Your task to perform on an android device: Open wifi settings Image 0: 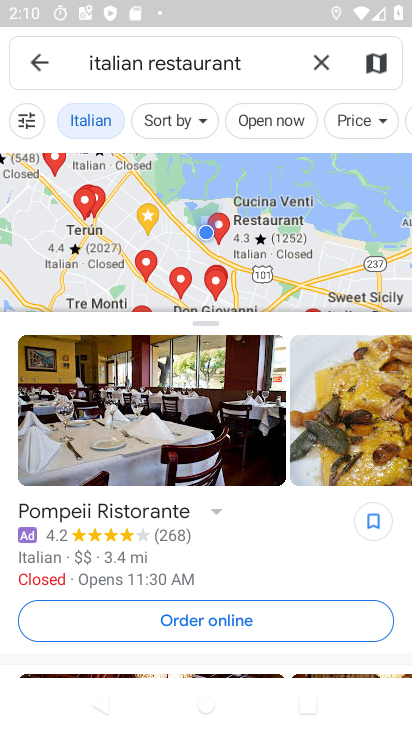
Step 0: press home button
Your task to perform on an android device: Open wifi settings Image 1: 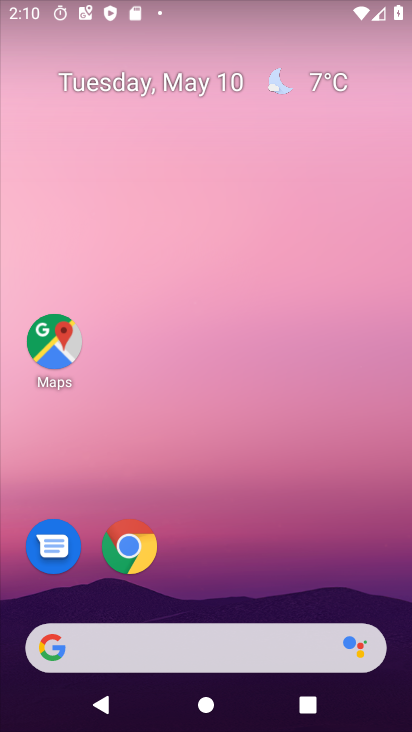
Step 1: drag from (300, 499) to (242, 64)
Your task to perform on an android device: Open wifi settings Image 2: 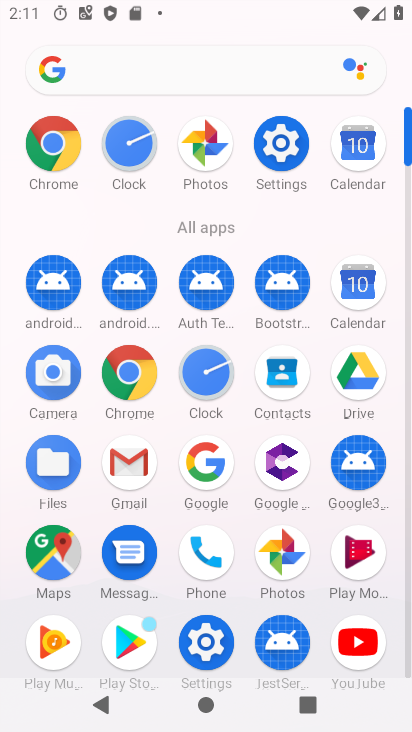
Step 2: click (271, 151)
Your task to perform on an android device: Open wifi settings Image 3: 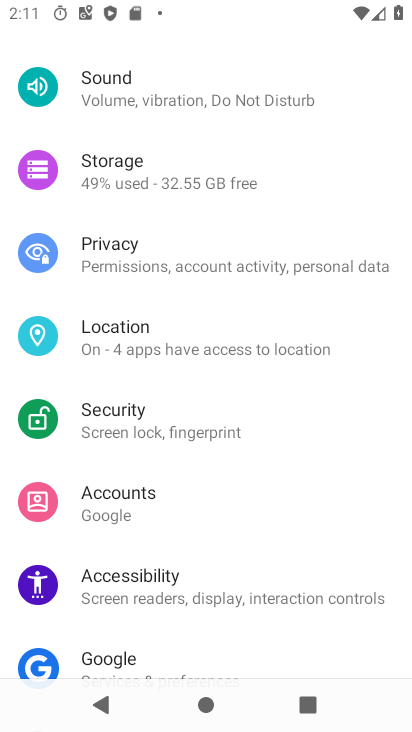
Step 3: drag from (198, 260) to (247, 543)
Your task to perform on an android device: Open wifi settings Image 4: 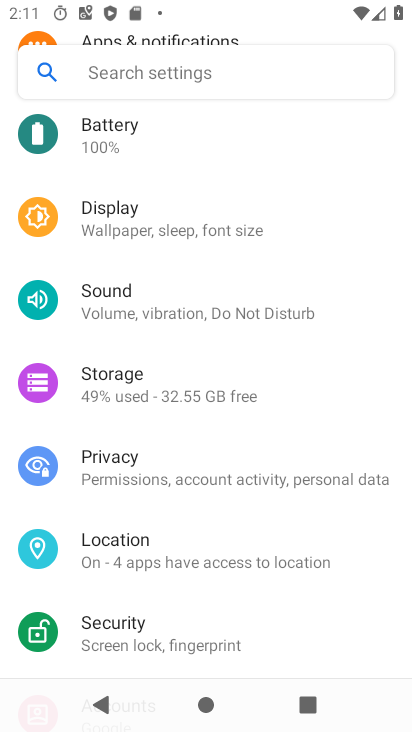
Step 4: drag from (234, 292) to (327, 575)
Your task to perform on an android device: Open wifi settings Image 5: 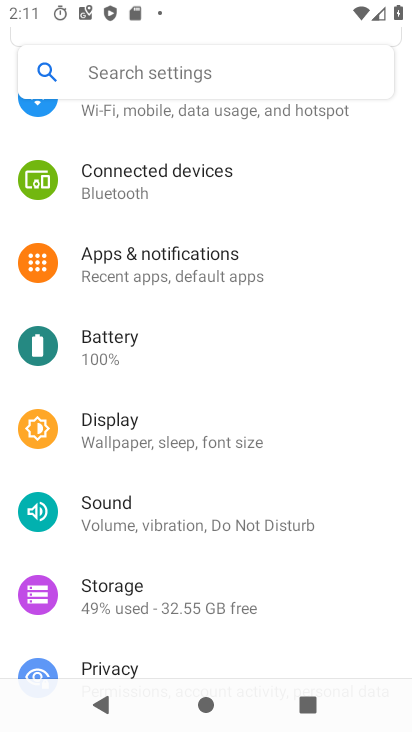
Step 5: drag from (200, 202) to (264, 555)
Your task to perform on an android device: Open wifi settings Image 6: 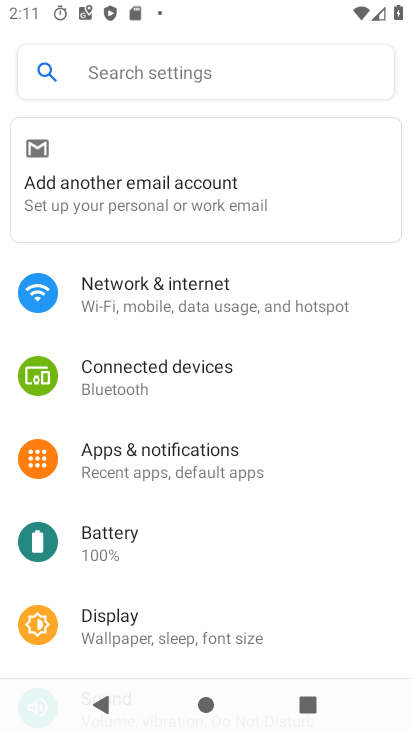
Step 6: click (175, 288)
Your task to perform on an android device: Open wifi settings Image 7: 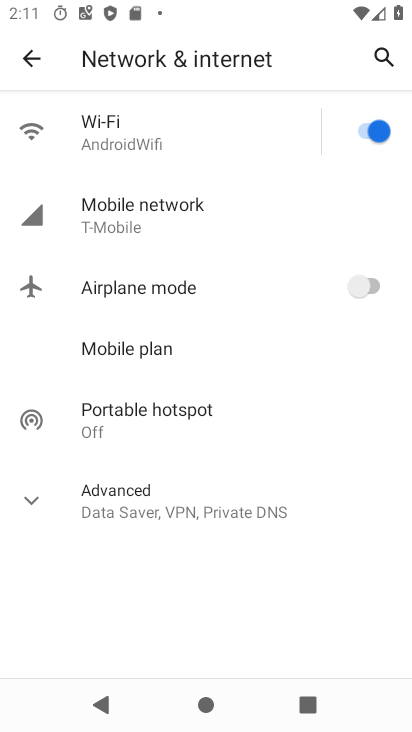
Step 7: click (140, 147)
Your task to perform on an android device: Open wifi settings Image 8: 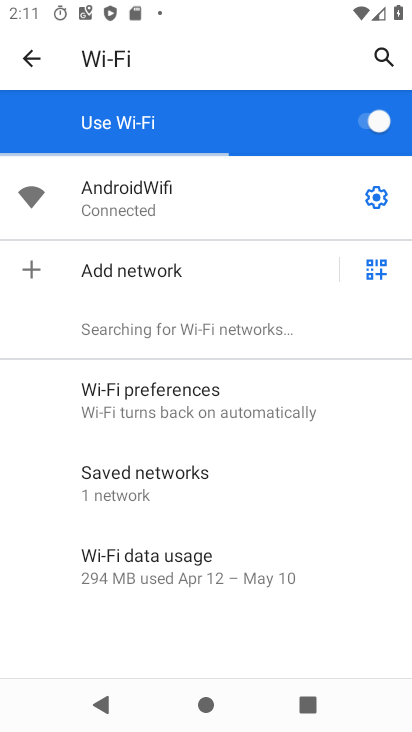
Step 8: task complete